Your task to perform on an android device: empty trash in the gmail app Image 0: 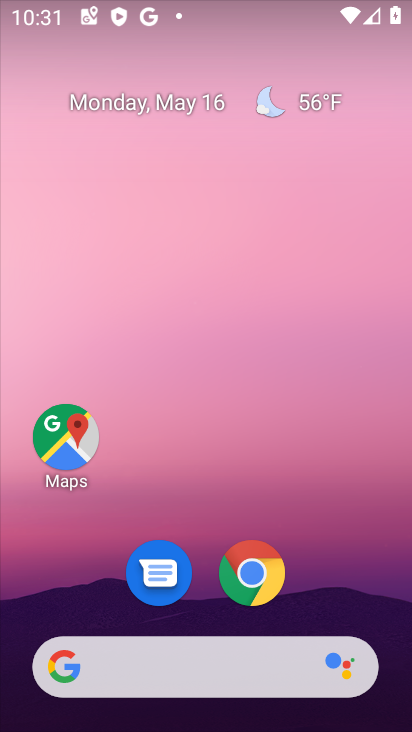
Step 0: drag from (316, 565) to (342, 294)
Your task to perform on an android device: empty trash in the gmail app Image 1: 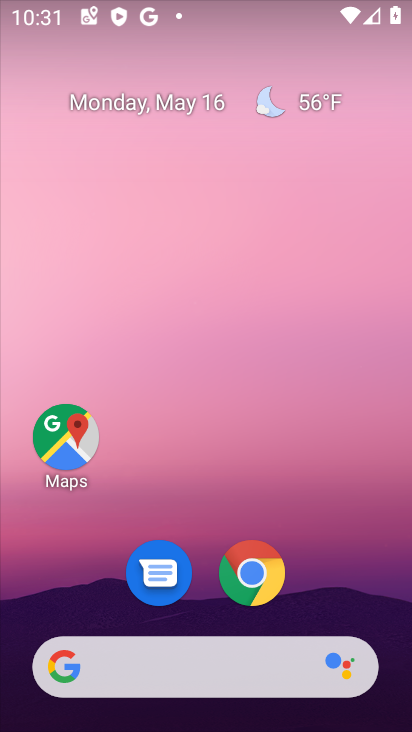
Step 1: drag from (348, 600) to (379, 65)
Your task to perform on an android device: empty trash in the gmail app Image 2: 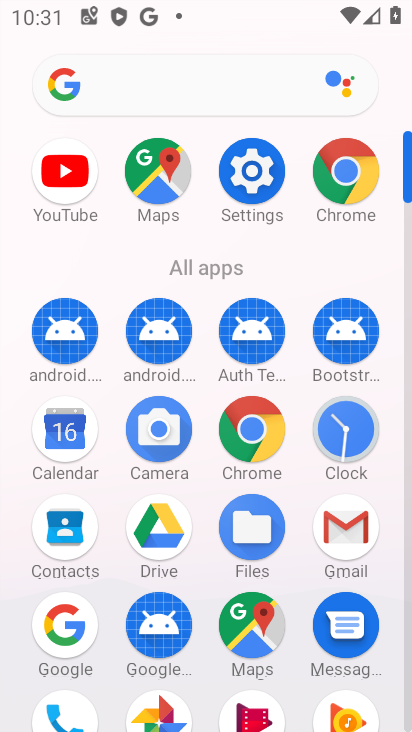
Step 2: click (338, 519)
Your task to perform on an android device: empty trash in the gmail app Image 3: 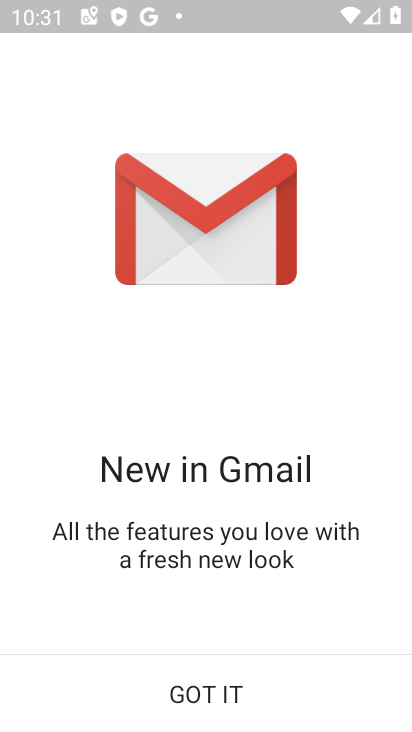
Step 3: click (247, 695)
Your task to perform on an android device: empty trash in the gmail app Image 4: 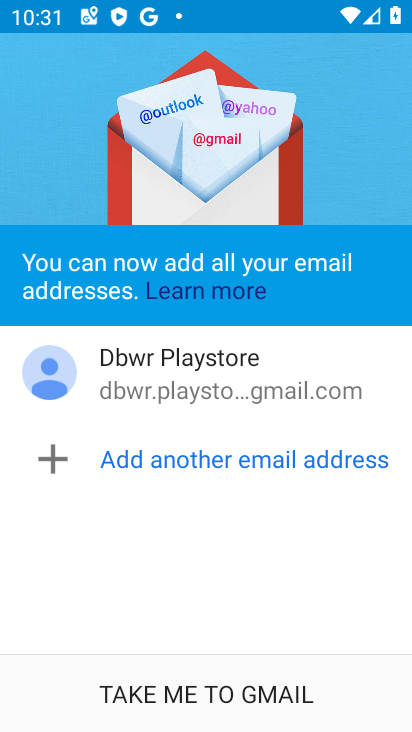
Step 4: click (233, 703)
Your task to perform on an android device: empty trash in the gmail app Image 5: 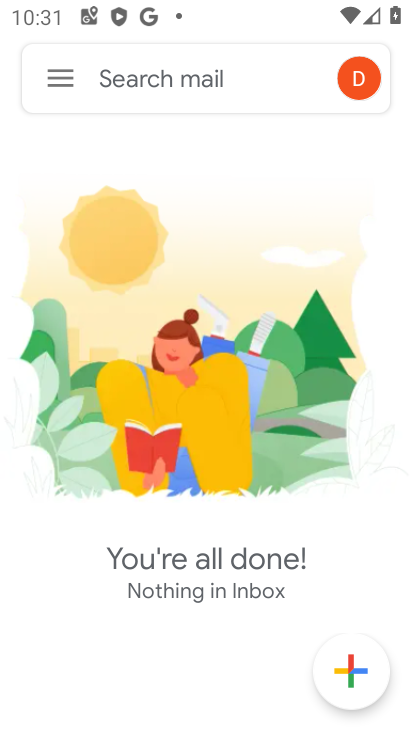
Step 5: click (60, 69)
Your task to perform on an android device: empty trash in the gmail app Image 6: 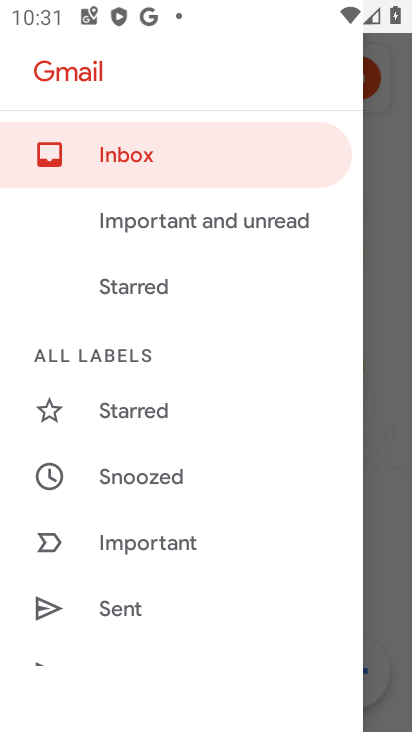
Step 6: drag from (232, 512) to (218, 220)
Your task to perform on an android device: empty trash in the gmail app Image 7: 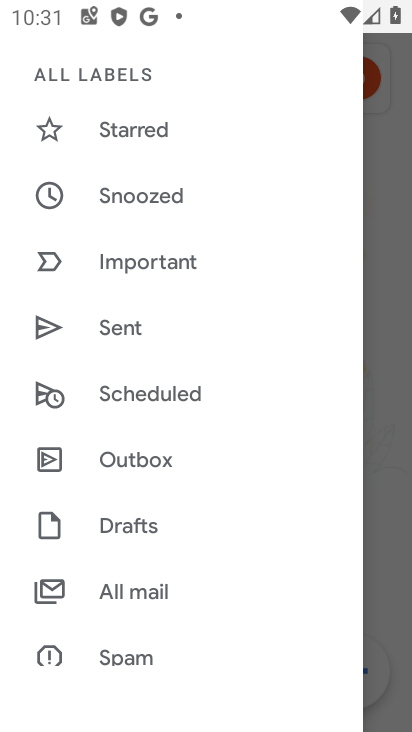
Step 7: drag from (203, 577) to (217, 346)
Your task to perform on an android device: empty trash in the gmail app Image 8: 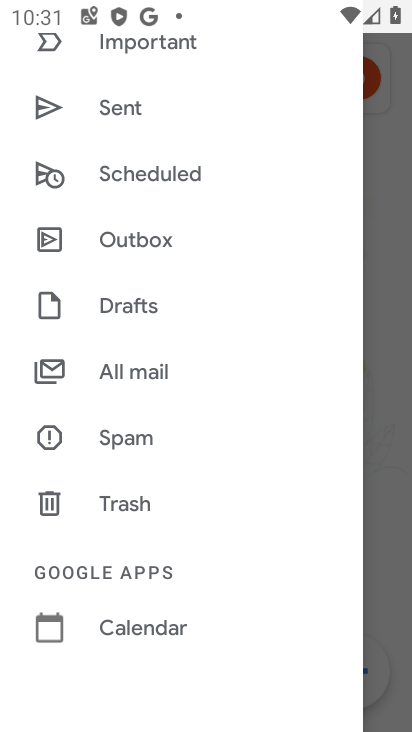
Step 8: click (152, 512)
Your task to perform on an android device: empty trash in the gmail app Image 9: 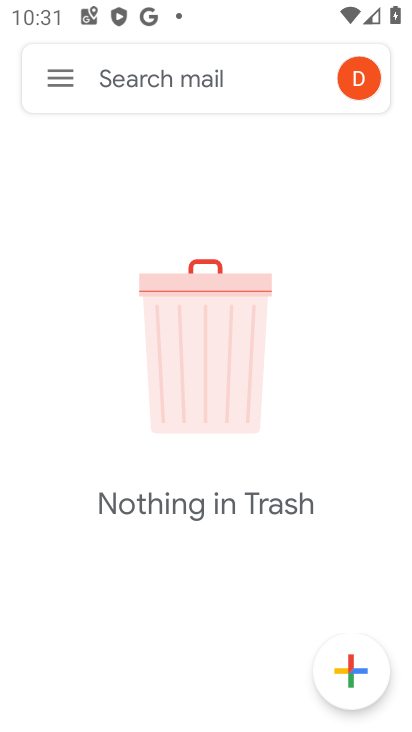
Step 9: task complete